Your task to perform on an android device: Search for cool wooden wall art on Etsy. Image 0: 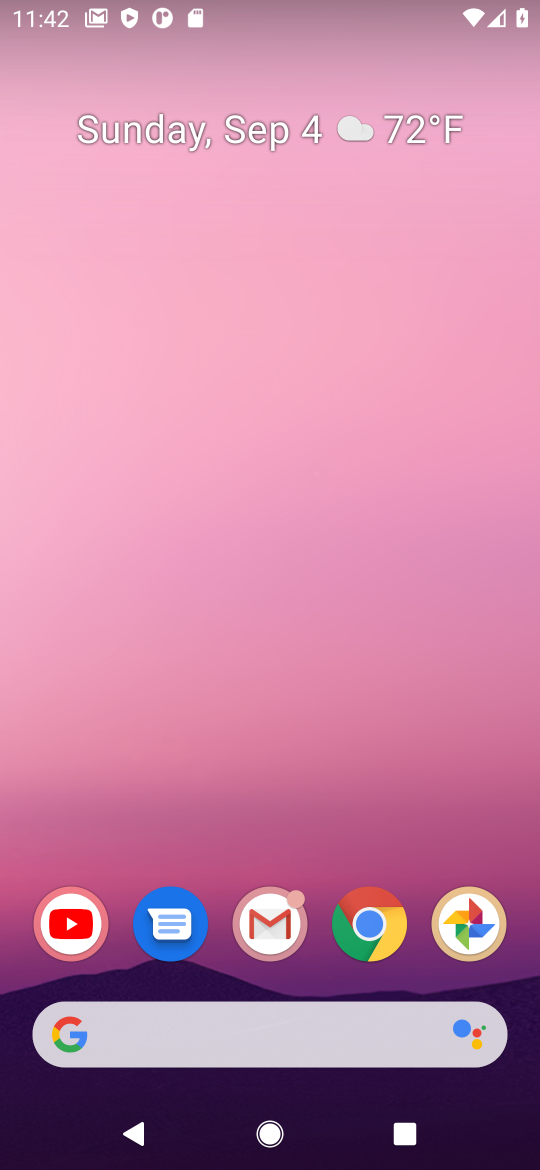
Step 0: drag from (326, 878) to (357, 20)
Your task to perform on an android device: Search for cool wooden wall art on Etsy. Image 1: 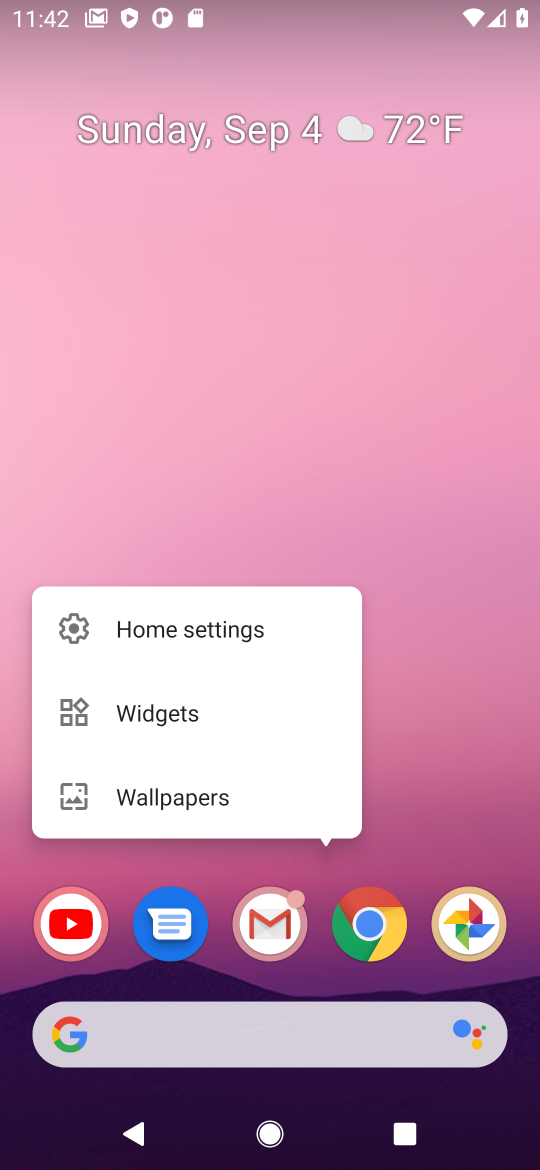
Step 1: click (397, 814)
Your task to perform on an android device: Search for cool wooden wall art on Etsy. Image 2: 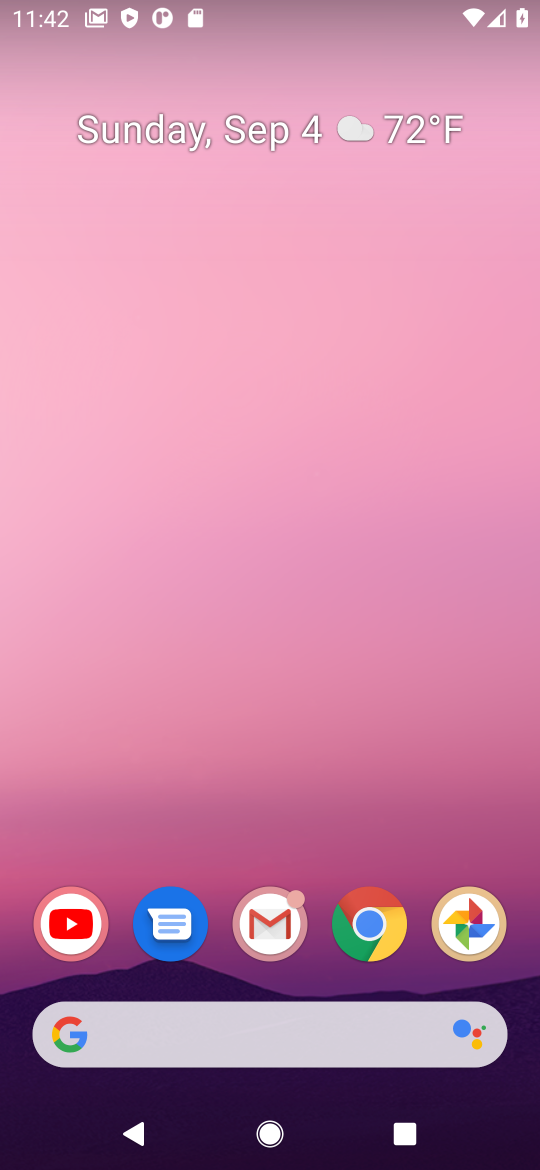
Step 2: drag from (338, 749) to (374, 147)
Your task to perform on an android device: Search for cool wooden wall art on Etsy. Image 3: 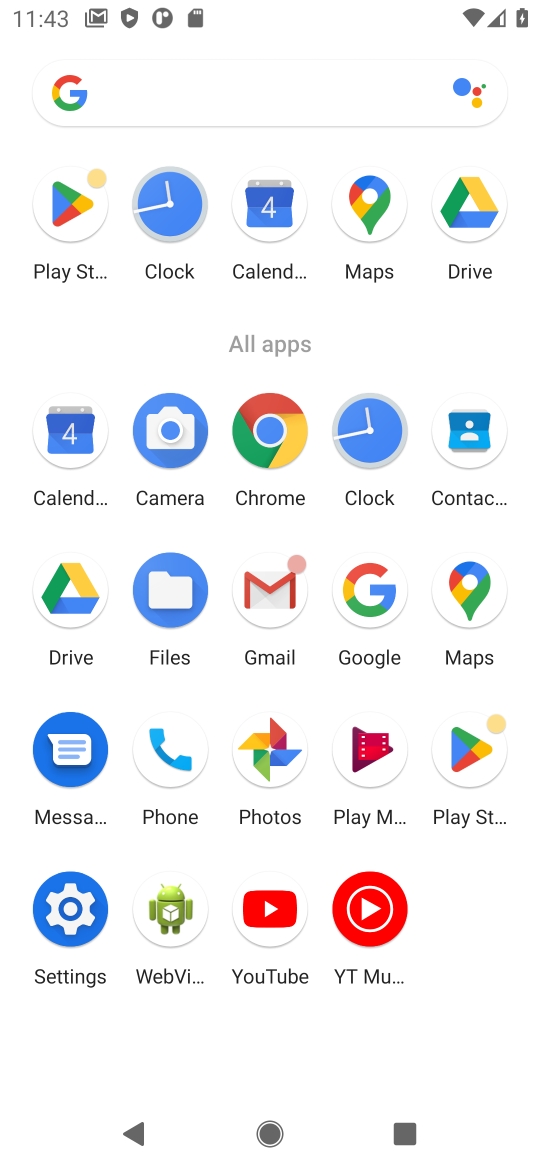
Step 3: click (274, 434)
Your task to perform on an android device: Search for cool wooden wall art on Etsy. Image 4: 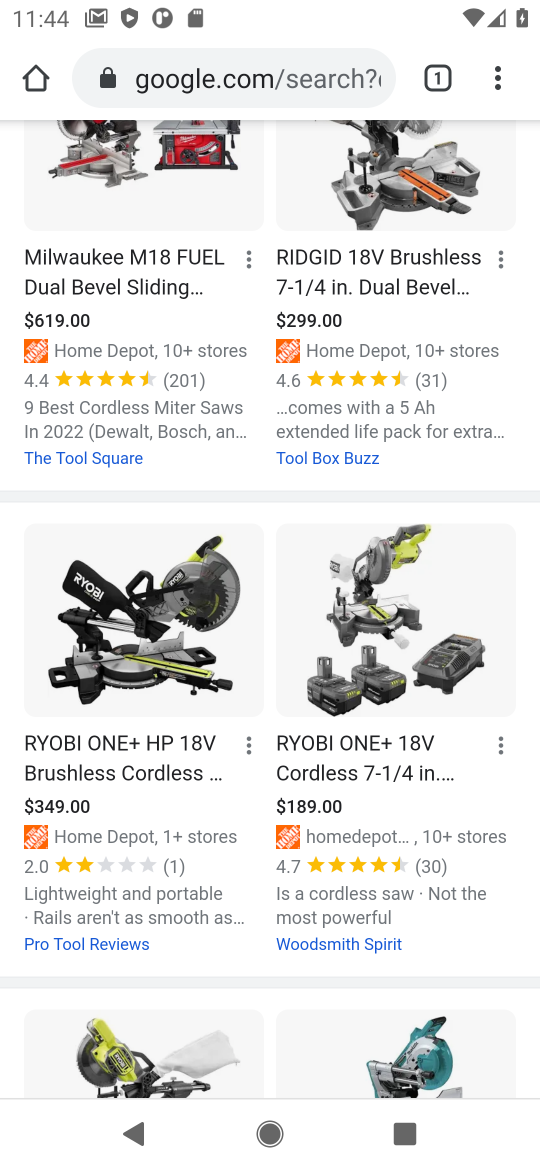
Step 4: click (433, 79)
Your task to perform on an android device: Search for cool wooden wall art on Etsy. Image 5: 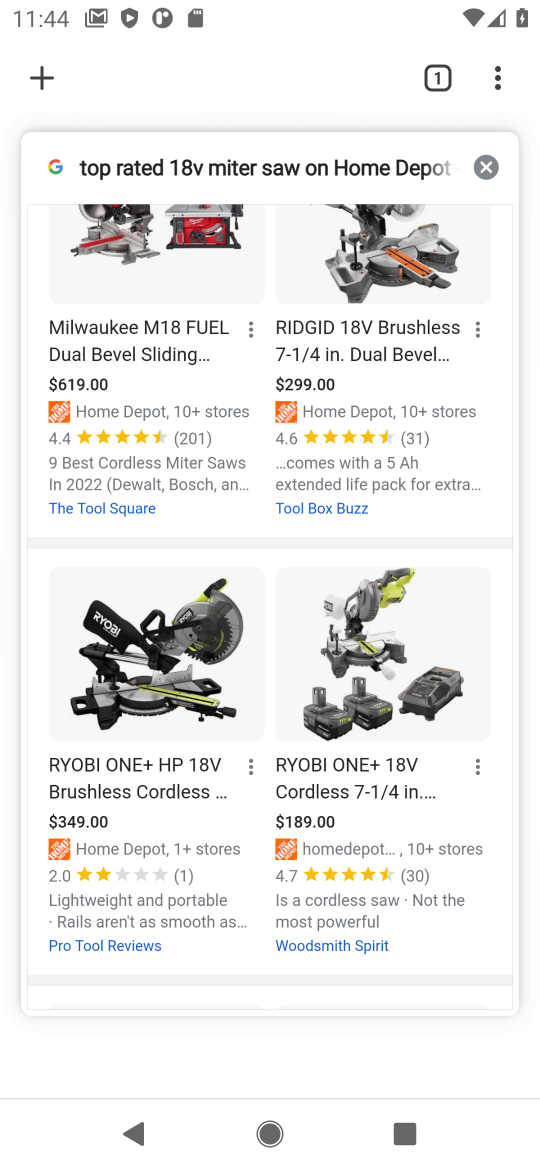
Step 5: click (485, 162)
Your task to perform on an android device: Search for cool wooden wall art on Etsy. Image 6: 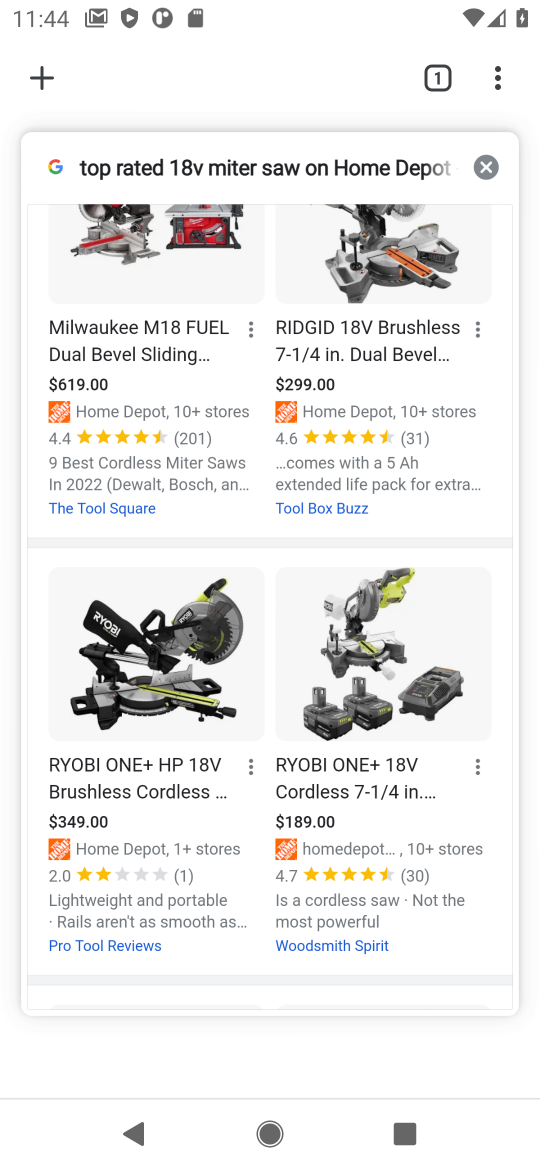
Step 6: click (45, 77)
Your task to perform on an android device: Search for cool wooden wall art on Etsy. Image 7: 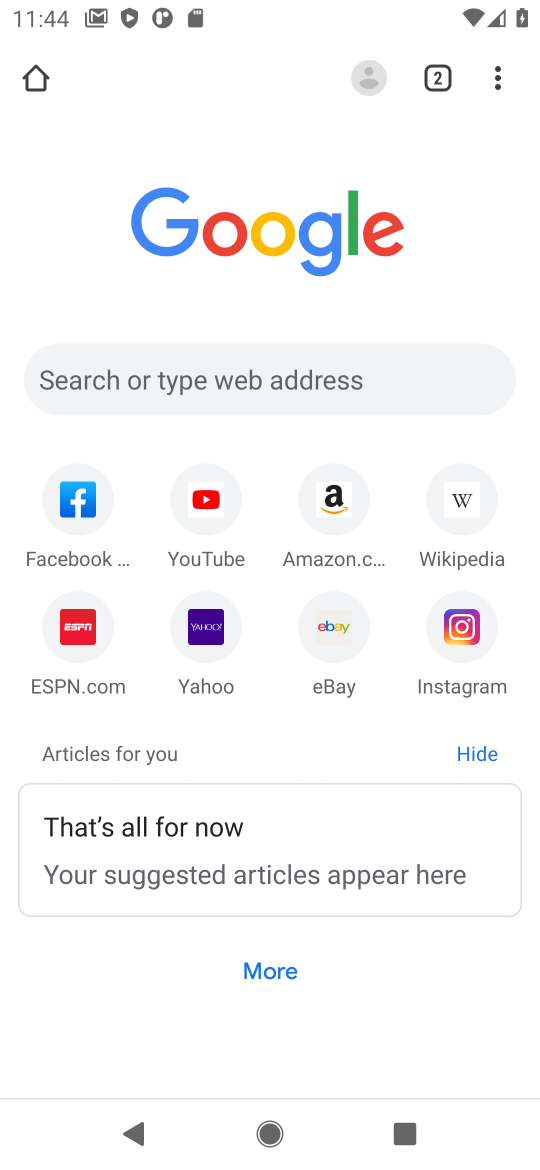
Step 7: click (143, 385)
Your task to perform on an android device: Search for cool wooden wall art on Etsy. Image 8: 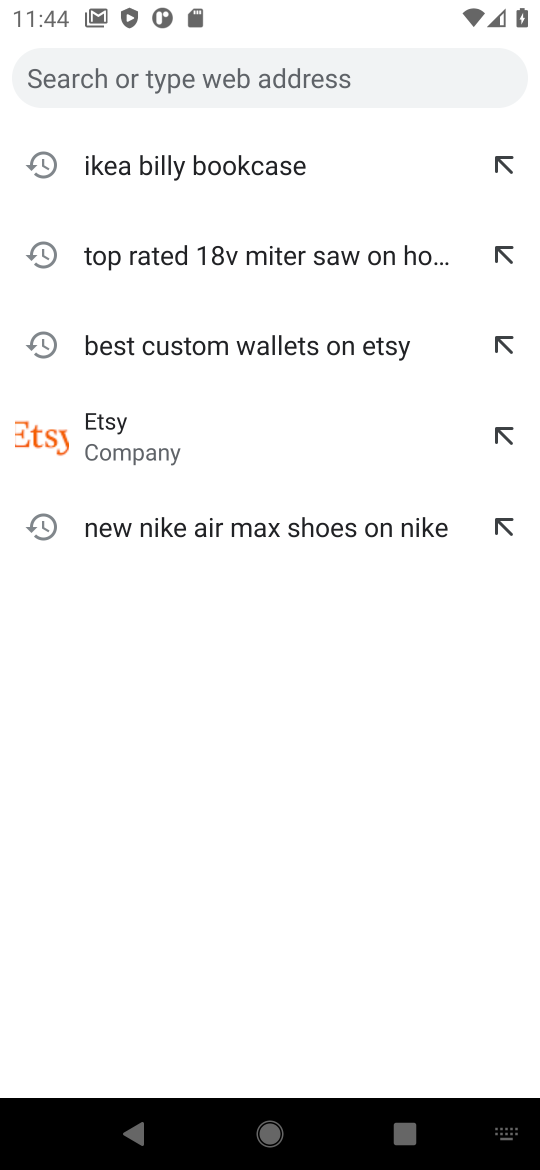
Step 8: type "cool wooden wall art on Etsy"
Your task to perform on an android device: Search for cool wooden wall art on Etsy. Image 9: 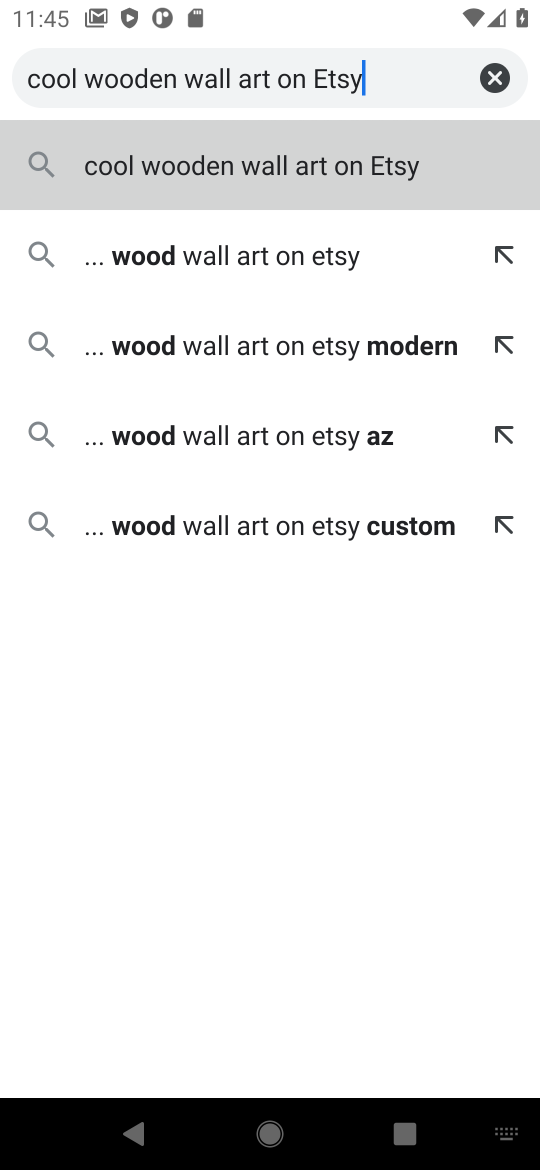
Step 9: click (172, 186)
Your task to perform on an android device: Search for cool wooden wall art on Etsy. Image 10: 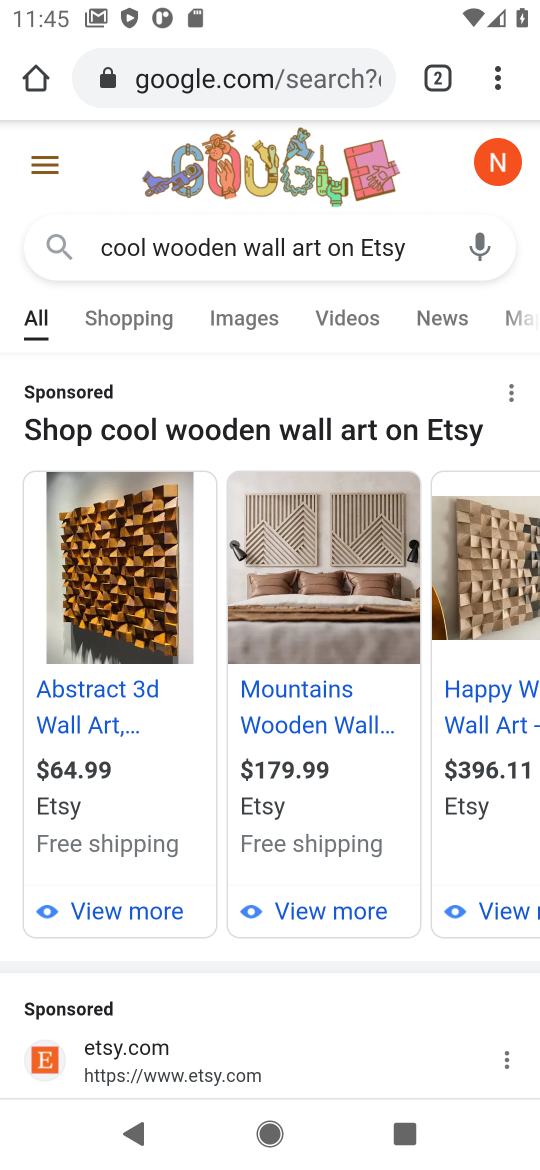
Step 10: drag from (263, 1025) to (363, 136)
Your task to perform on an android device: Search for cool wooden wall art on Etsy. Image 11: 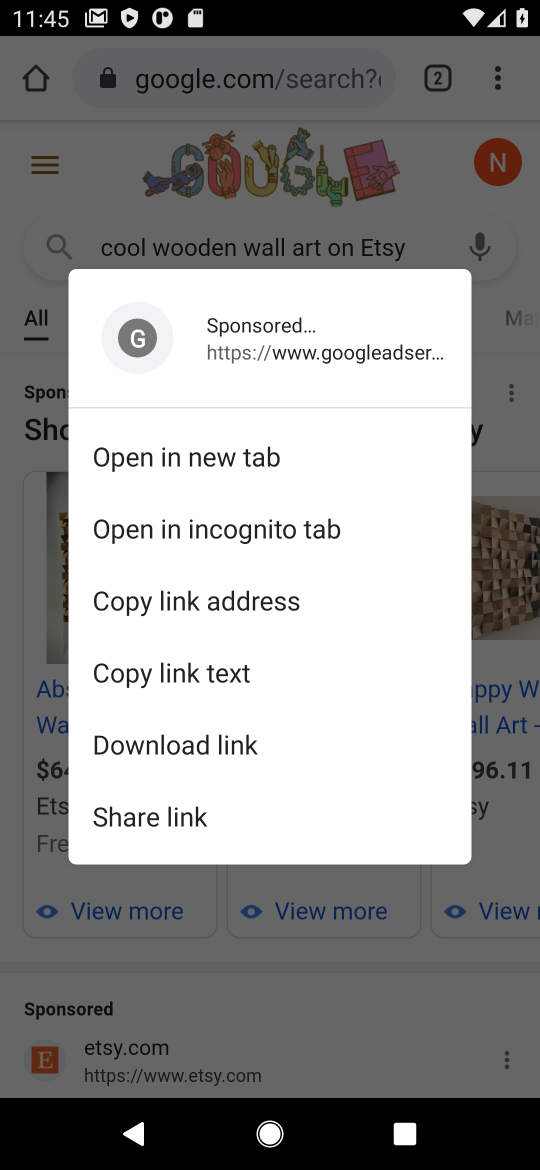
Step 11: click (433, 975)
Your task to perform on an android device: Search for cool wooden wall art on Etsy. Image 12: 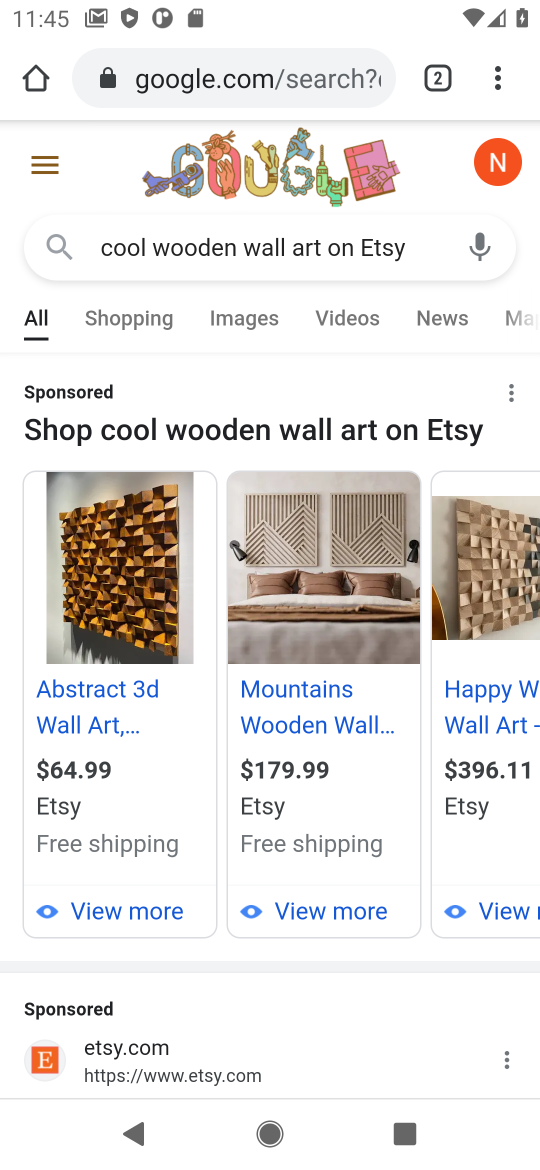
Step 12: drag from (383, 1016) to (377, 162)
Your task to perform on an android device: Search for cool wooden wall art on Etsy. Image 13: 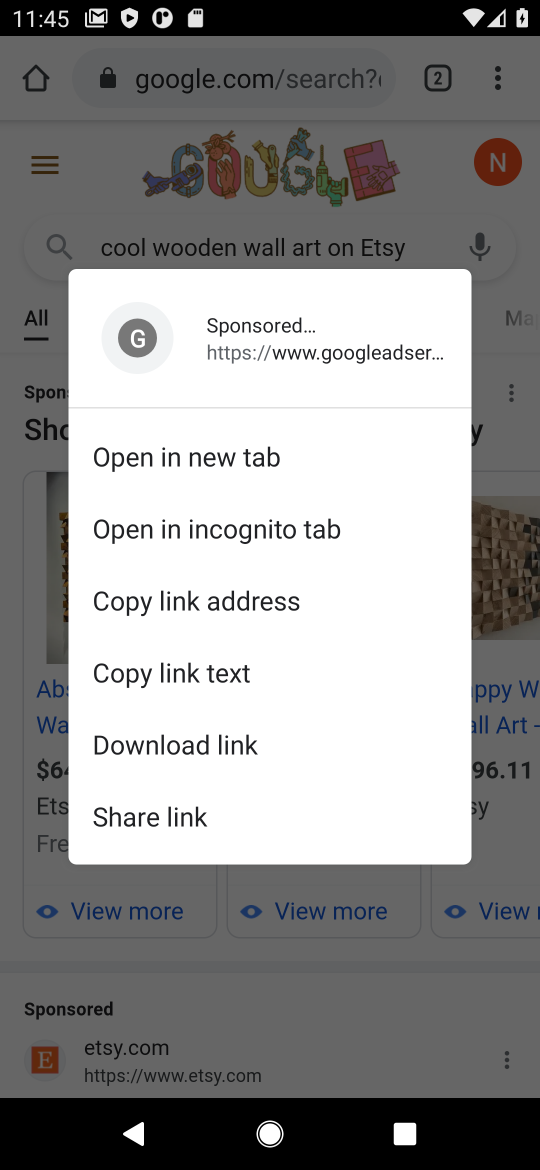
Step 13: click (378, 970)
Your task to perform on an android device: Search for cool wooden wall art on Etsy. Image 14: 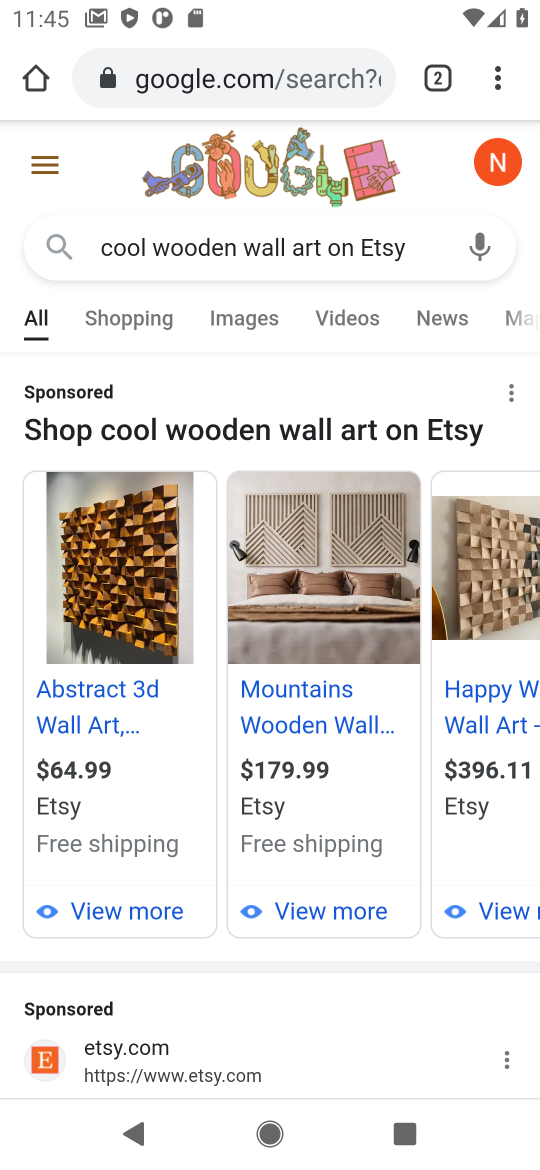
Step 14: drag from (400, 892) to (428, 132)
Your task to perform on an android device: Search for cool wooden wall art on Etsy. Image 15: 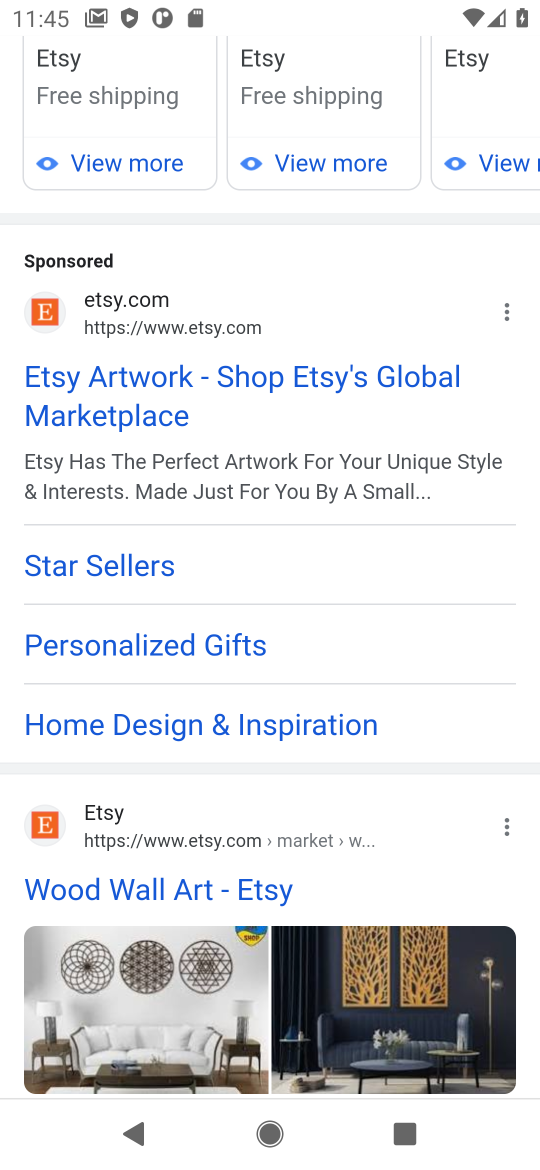
Step 15: click (141, 884)
Your task to perform on an android device: Search for cool wooden wall art on Etsy. Image 16: 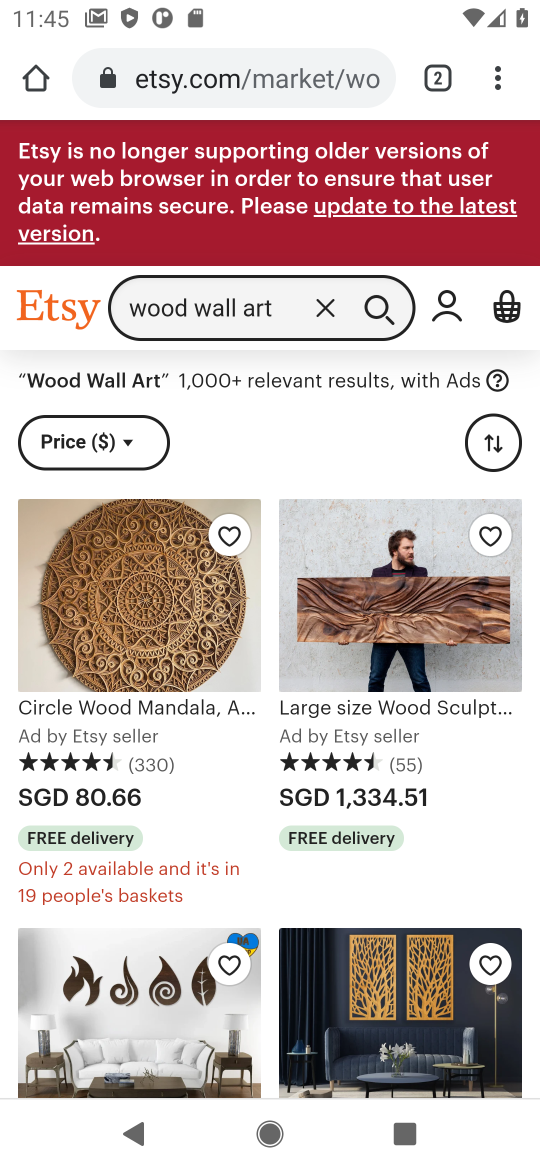
Step 16: task complete